Your task to perform on an android device: Search for the best coffee tables on Crate & Barrel Image 0: 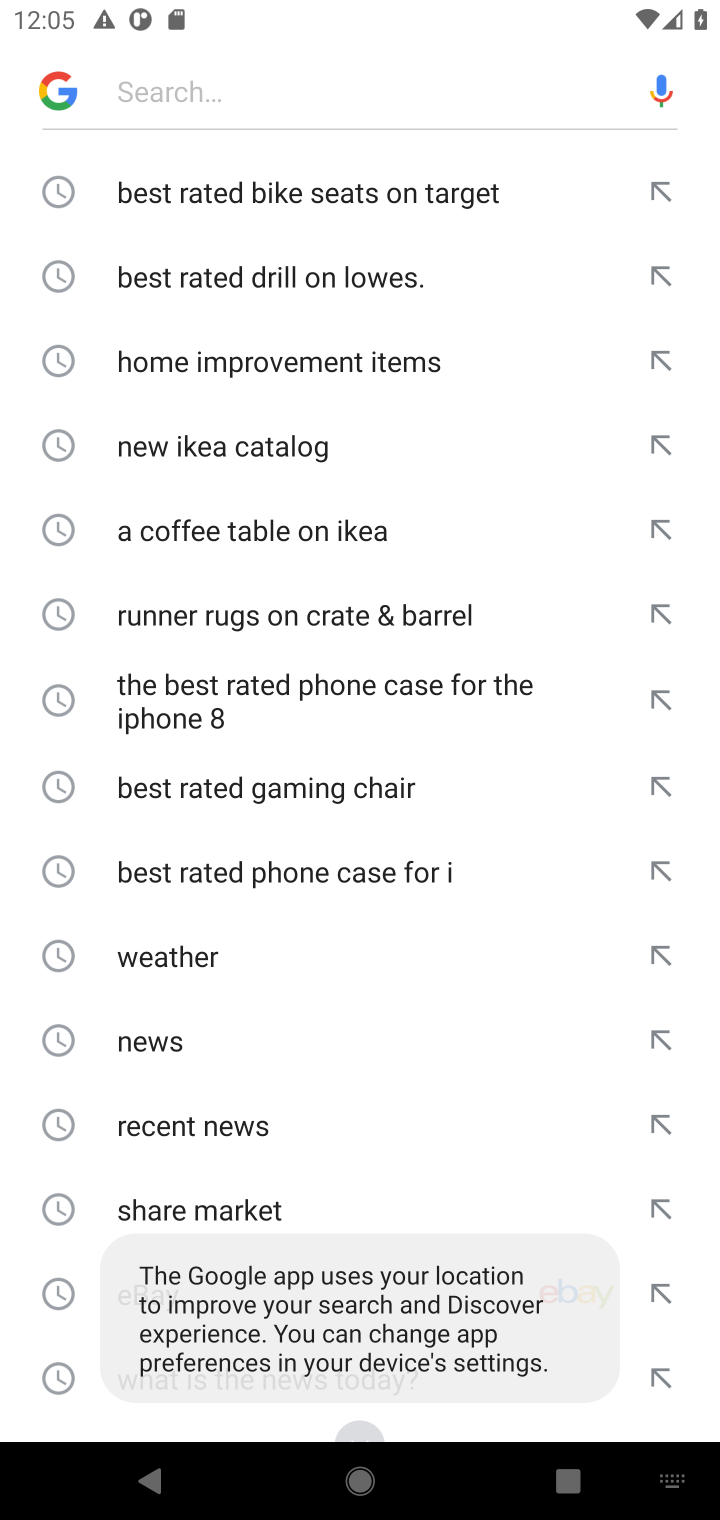
Step 0: press home button
Your task to perform on an android device: Search for the best coffee tables on Crate & Barrel Image 1: 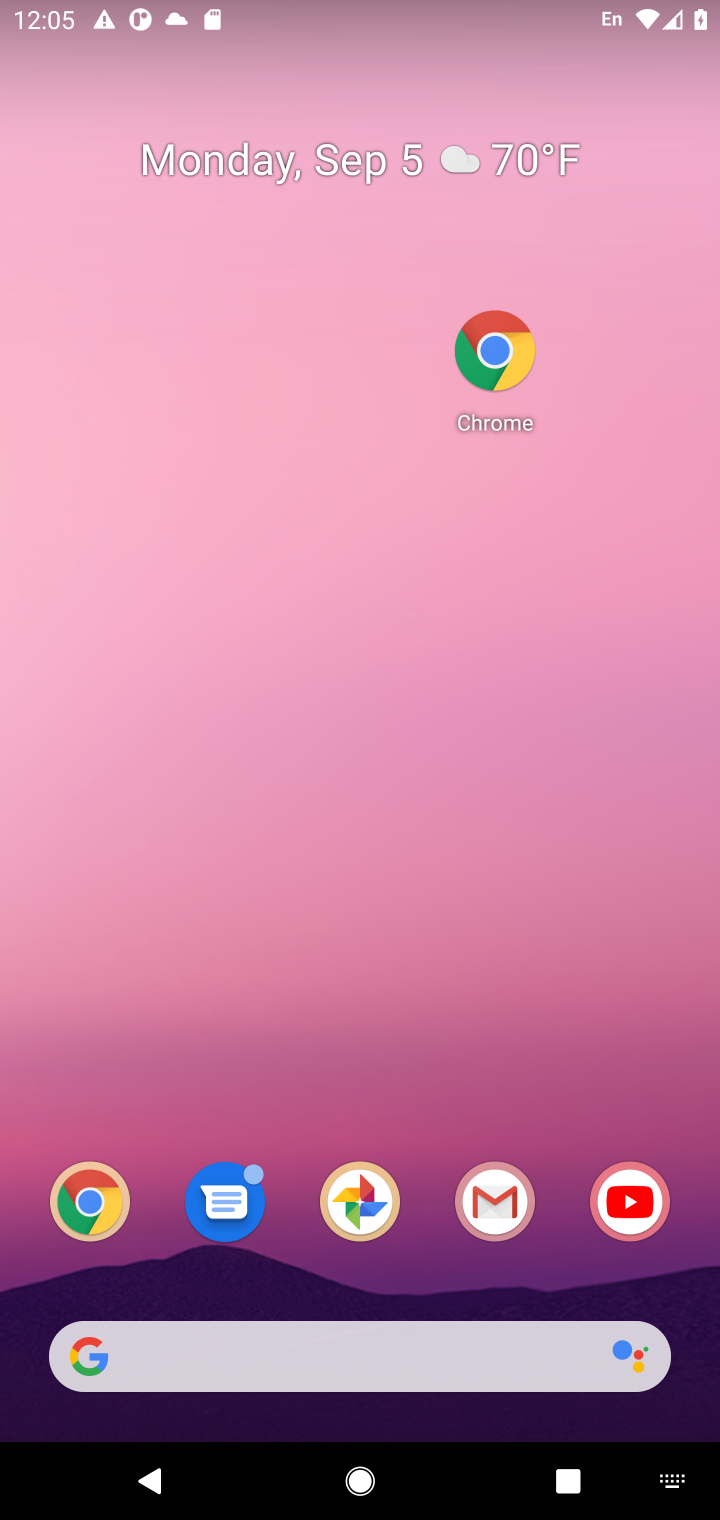
Step 1: drag from (495, 1107) to (711, 119)
Your task to perform on an android device: Search for the best coffee tables on Crate & Barrel Image 2: 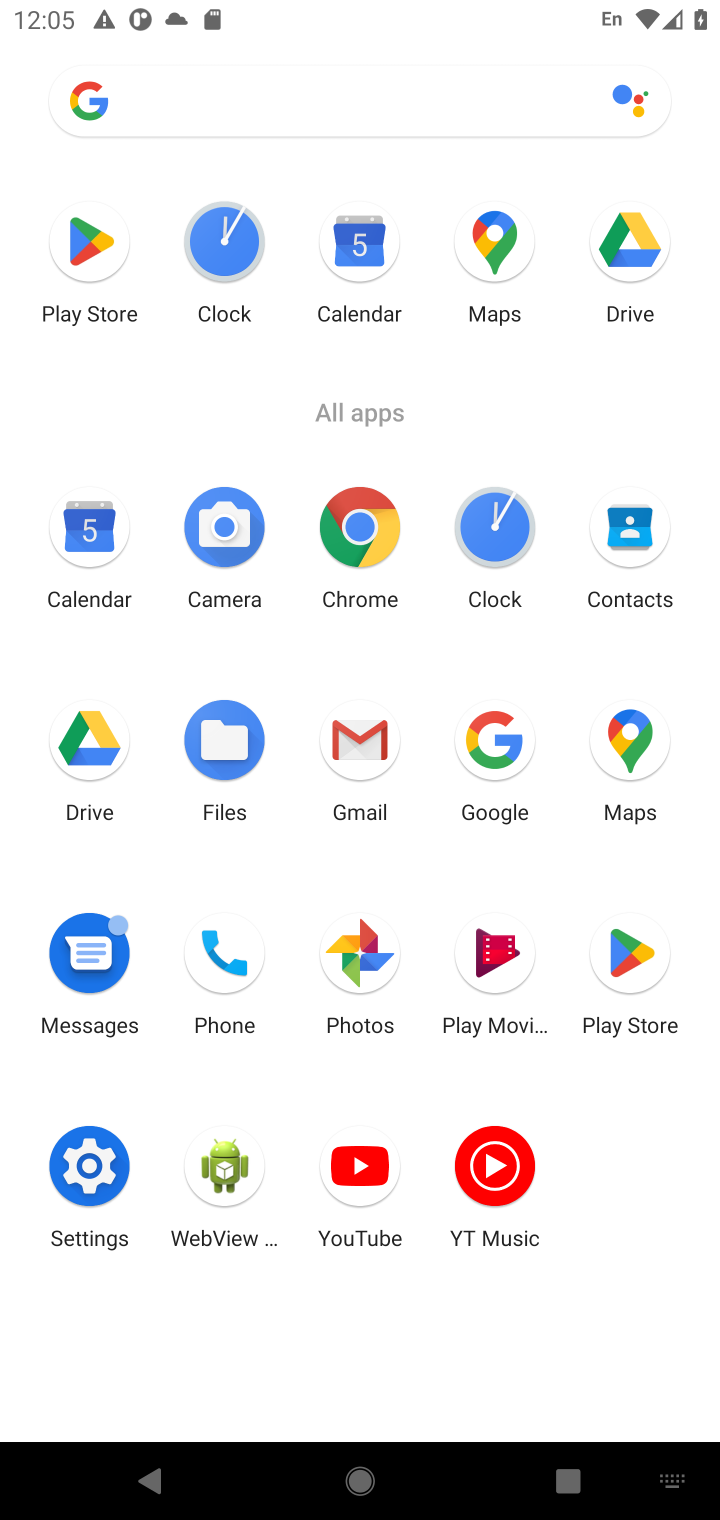
Step 2: click (364, 527)
Your task to perform on an android device: Search for the best coffee tables on Crate & Barrel Image 3: 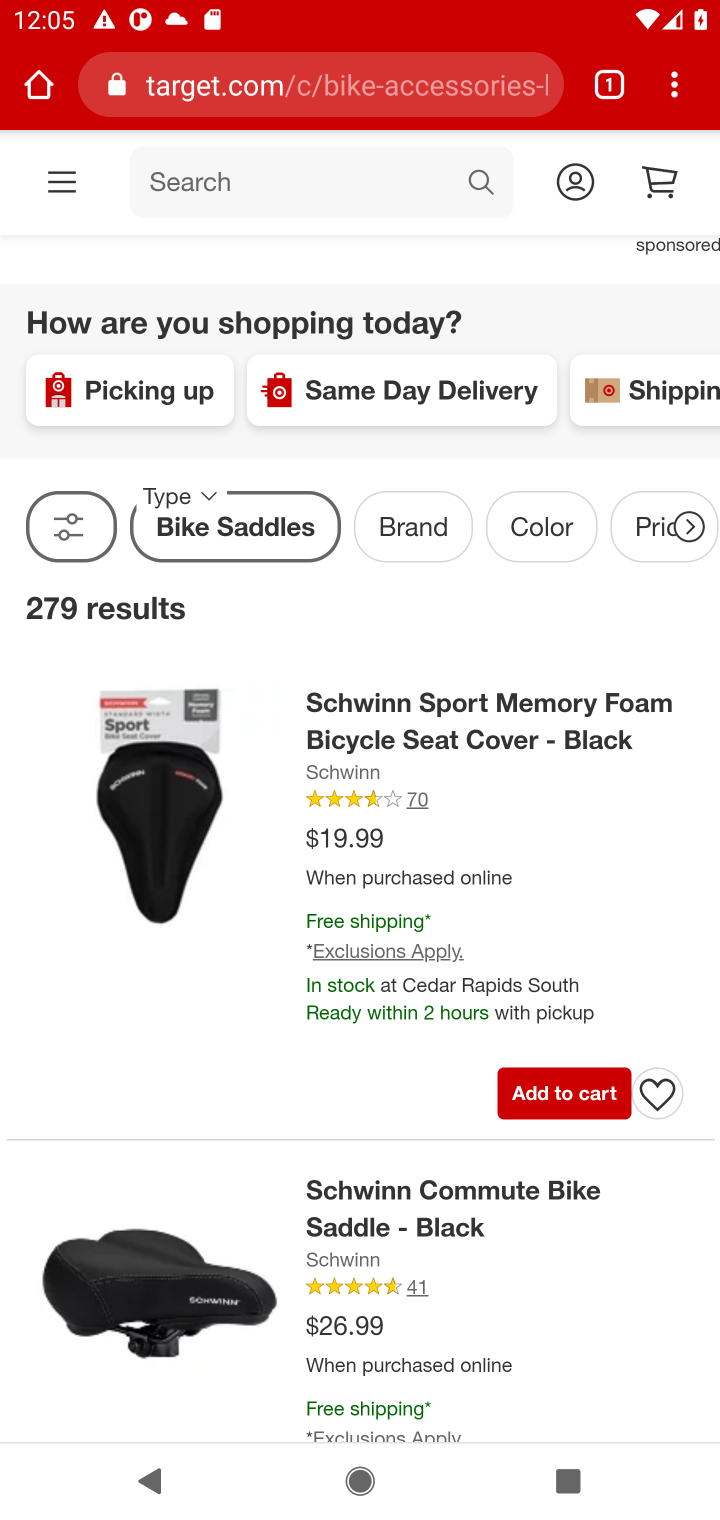
Step 3: click (393, 80)
Your task to perform on an android device: Search for the best coffee tables on Crate & Barrel Image 4: 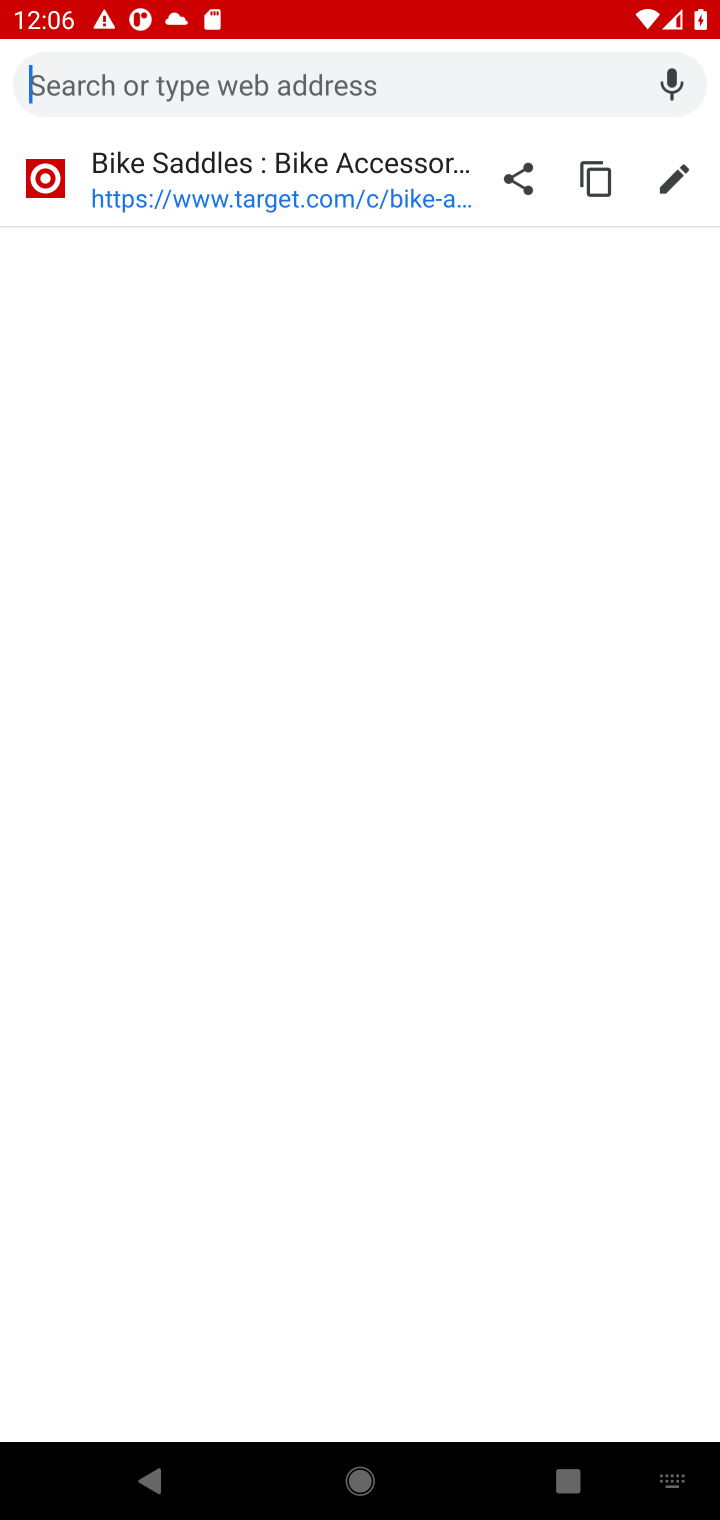
Step 4: type "best coffee tables on Crate & Barrel"
Your task to perform on an android device: Search for the best coffee tables on Crate & Barrel Image 5: 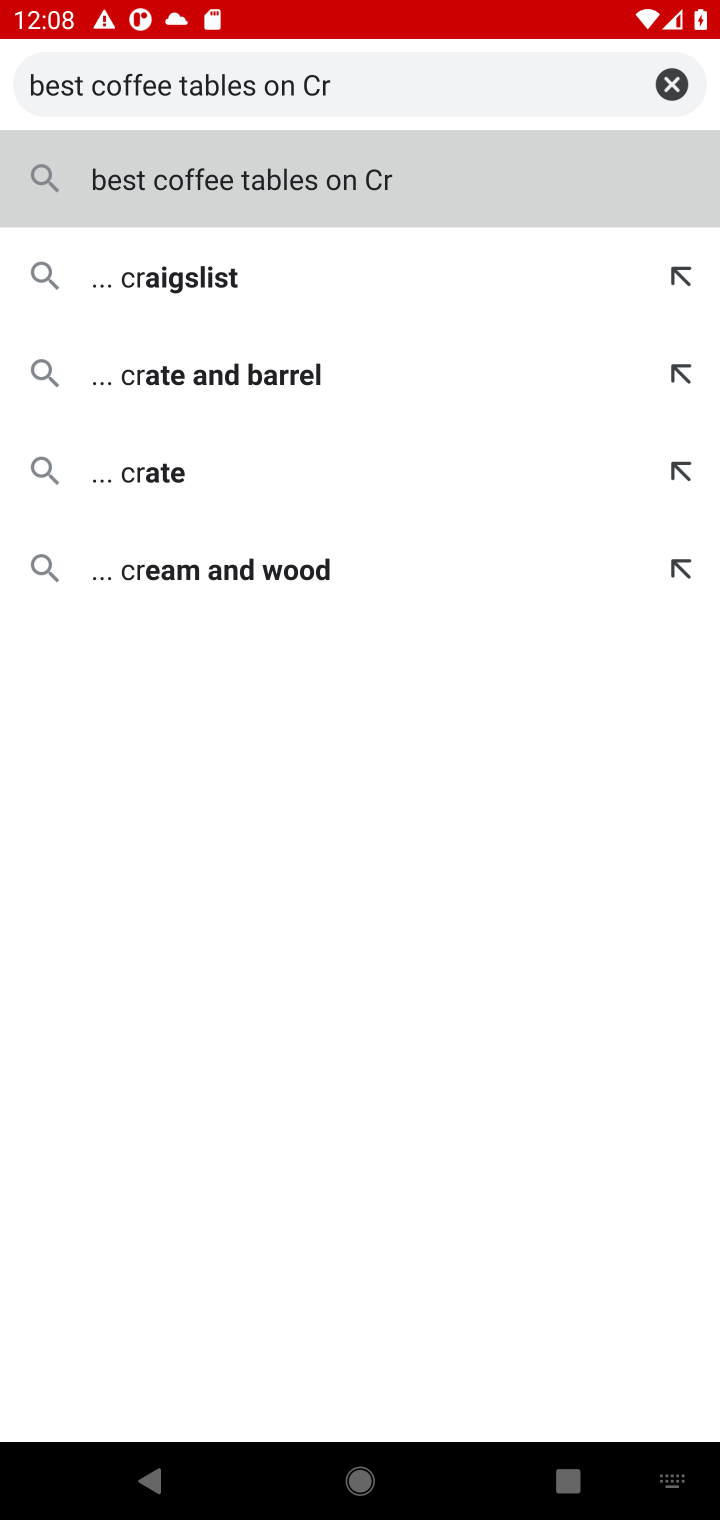
Step 5: type "ate & Barrel"
Your task to perform on an android device: Search for the best coffee tables on Crate & Barrel Image 6: 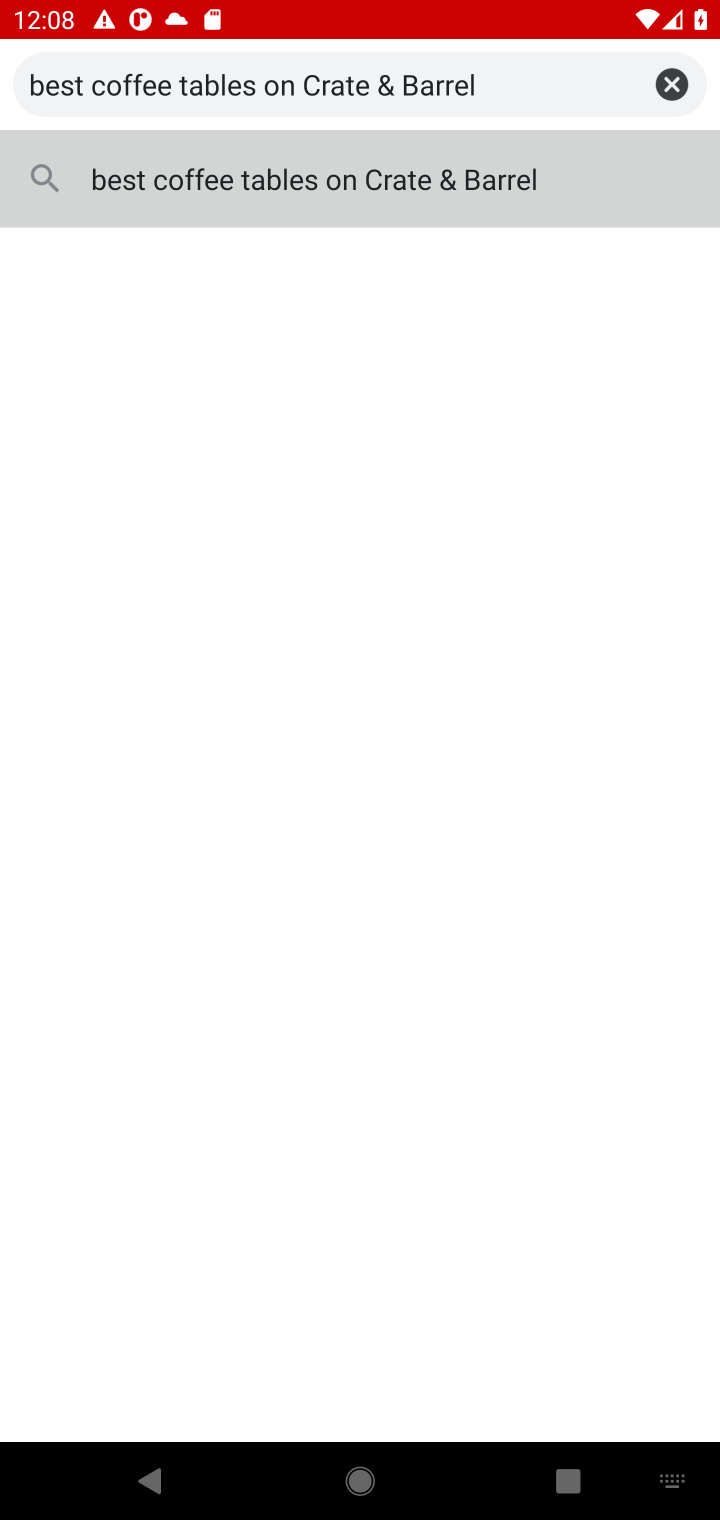
Step 6: press enter
Your task to perform on an android device: Search for the best coffee tables on Crate & Barrel Image 7: 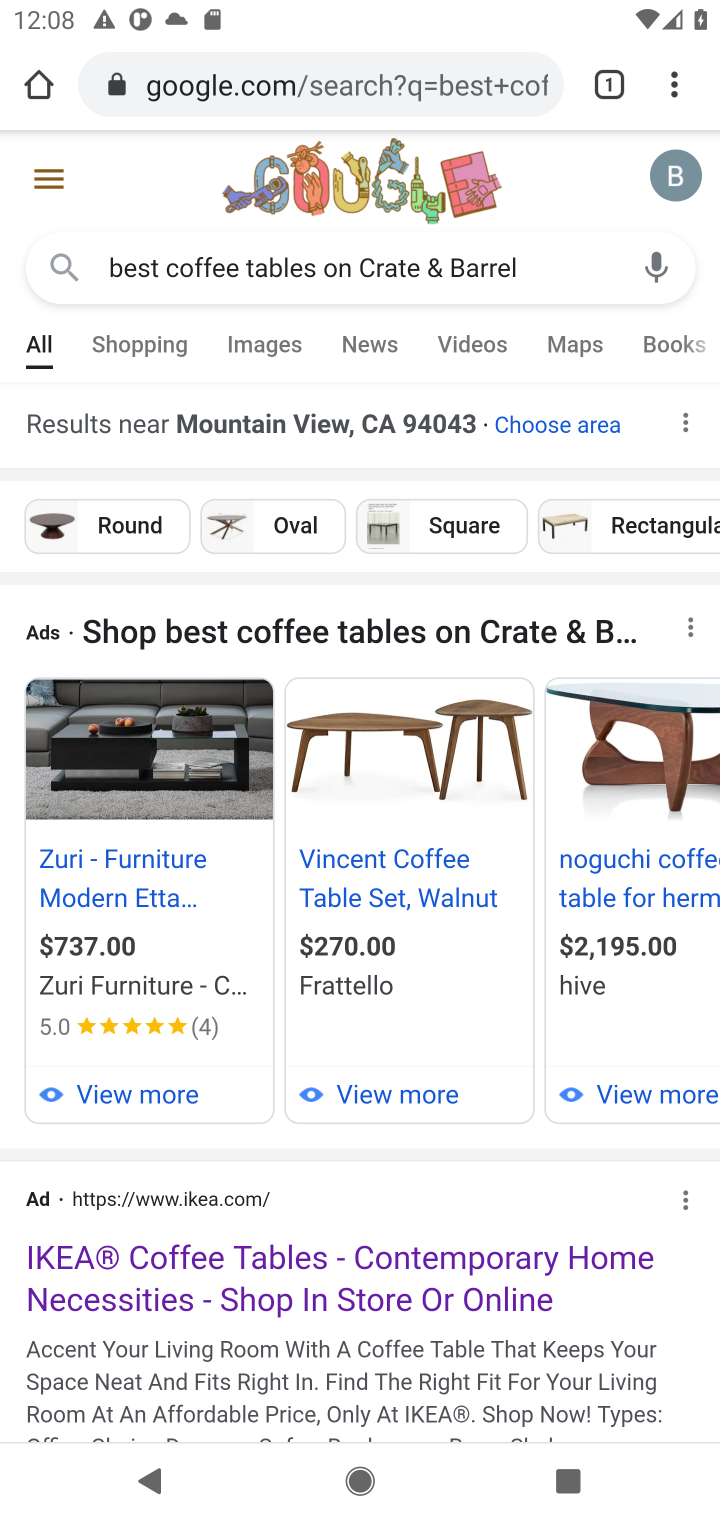
Step 7: drag from (388, 1200) to (711, 985)
Your task to perform on an android device: Search for the best coffee tables on Crate & Barrel Image 8: 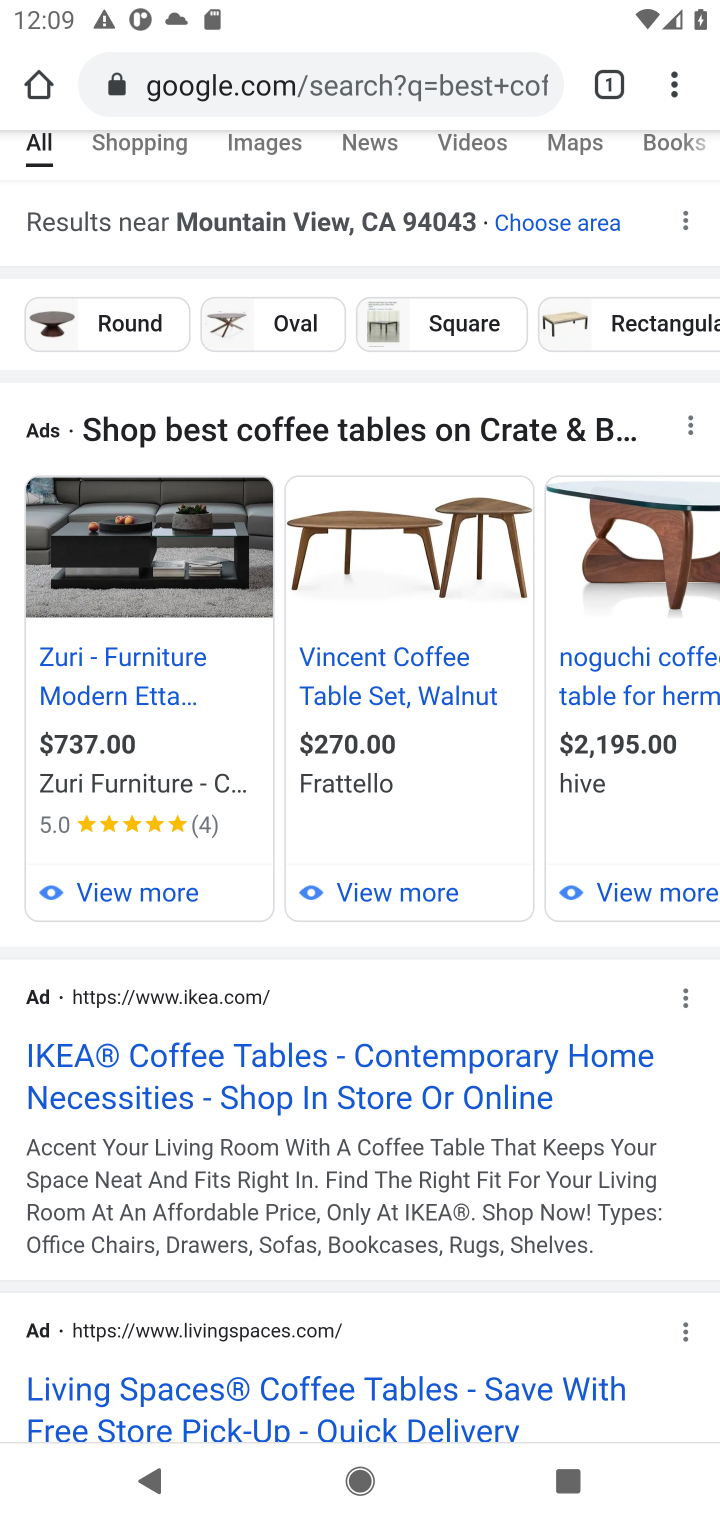
Step 8: drag from (195, 1192) to (363, 4)
Your task to perform on an android device: Search for the best coffee tables on Crate & Barrel Image 9: 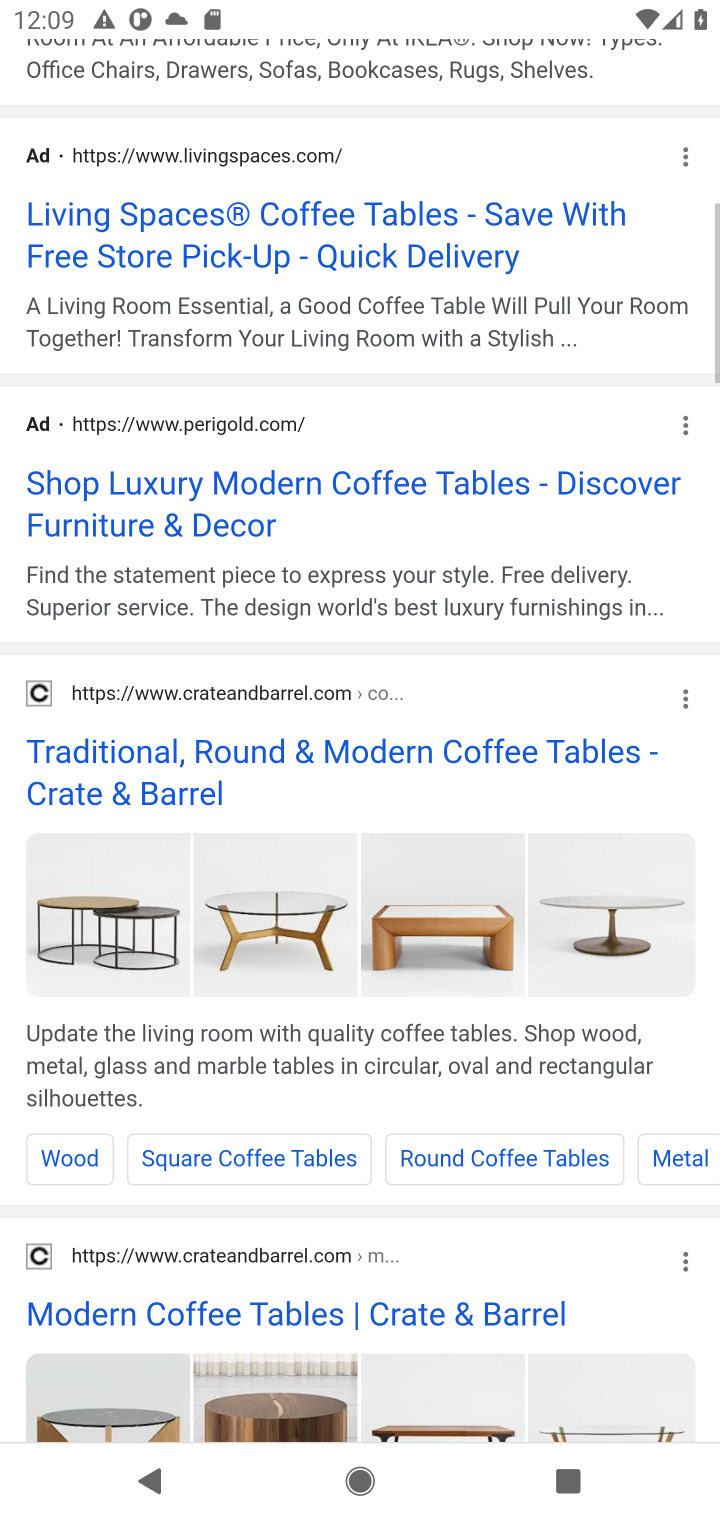
Step 9: drag from (425, 1014) to (442, 708)
Your task to perform on an android device: Search for the best coffee tables on Crate & Barrel Image 10: 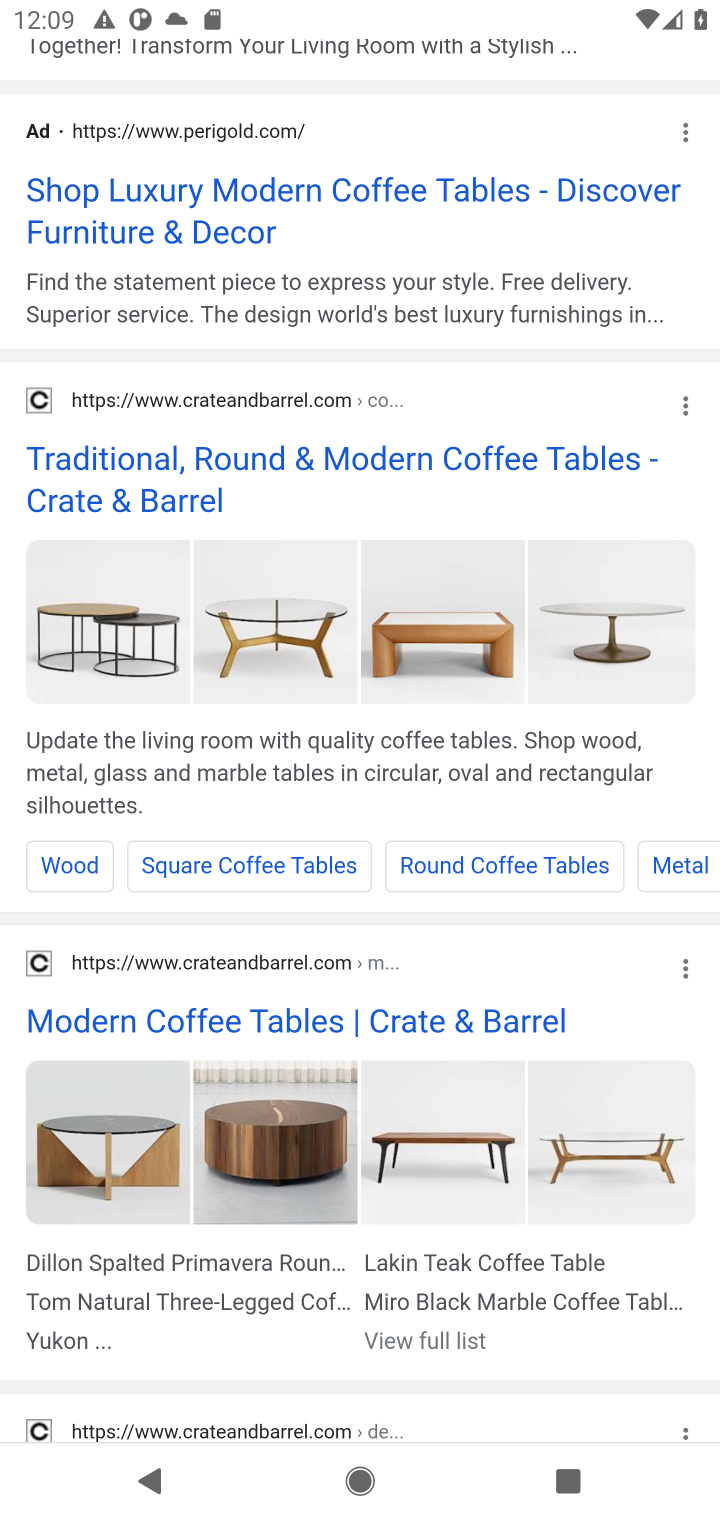
Step 10: click (364, 1016)
Your task to perform on an android device: Search for the best coffee tables on Crate & Barrel Image 11: 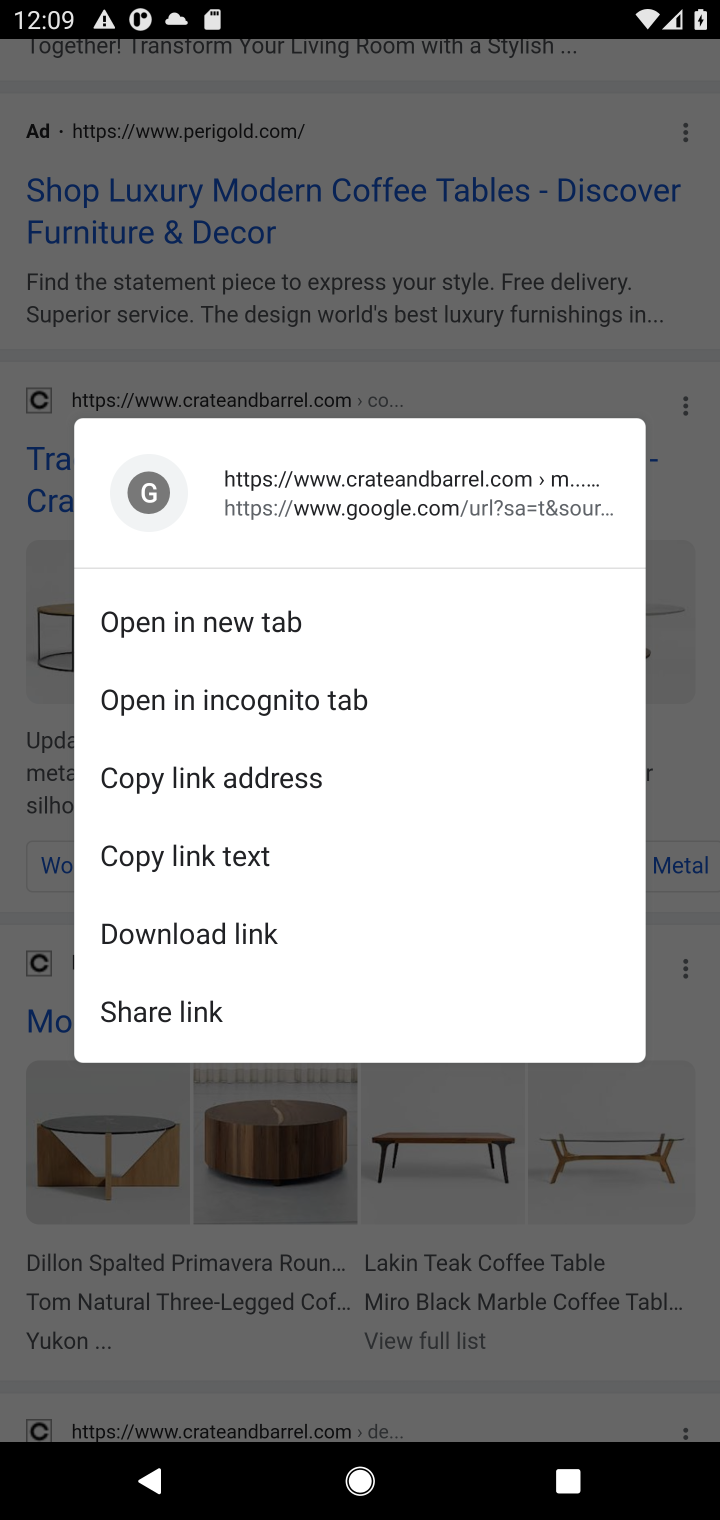
Step 11: click (371, 281)
Your task to perform on an android device: Search for the best coffee tables on Crate & Barrel Image 12: 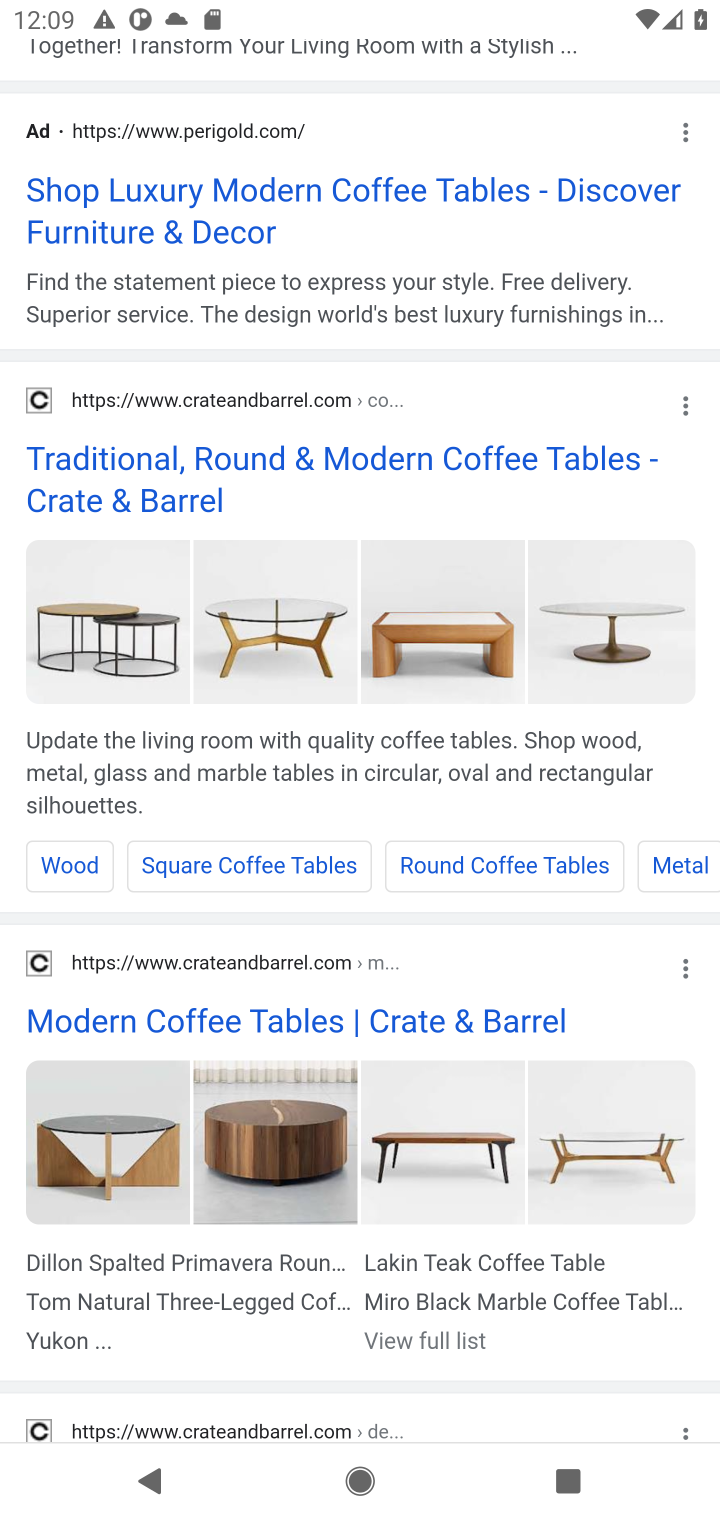
Step 12: click (337, 467)
Your task to perform on an android device: Search for the best coffee tables on Crate & Barrel Image 13: 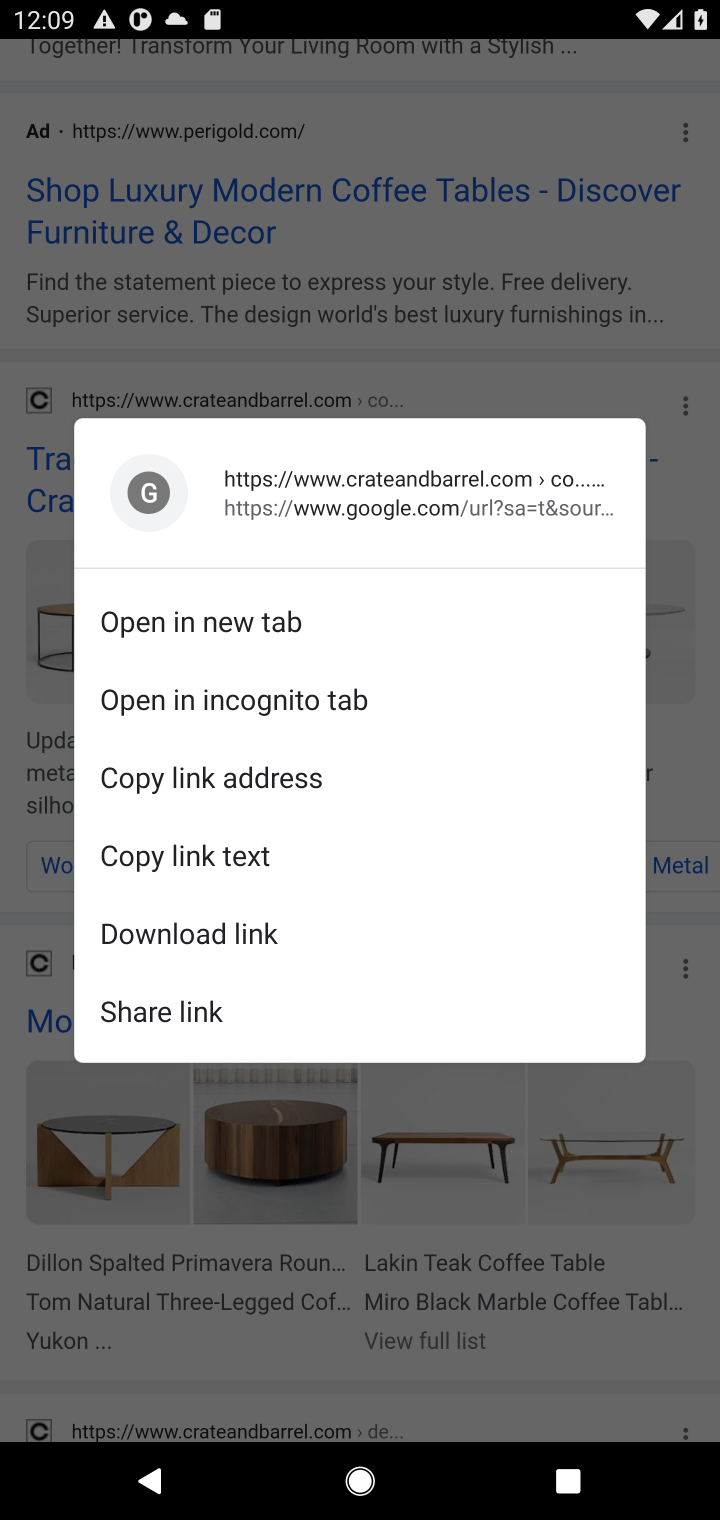
Step 13: click (385, 332)
Your task to perform on an android device: Search for the best coffee tables on Crate & Barrel Image 14: 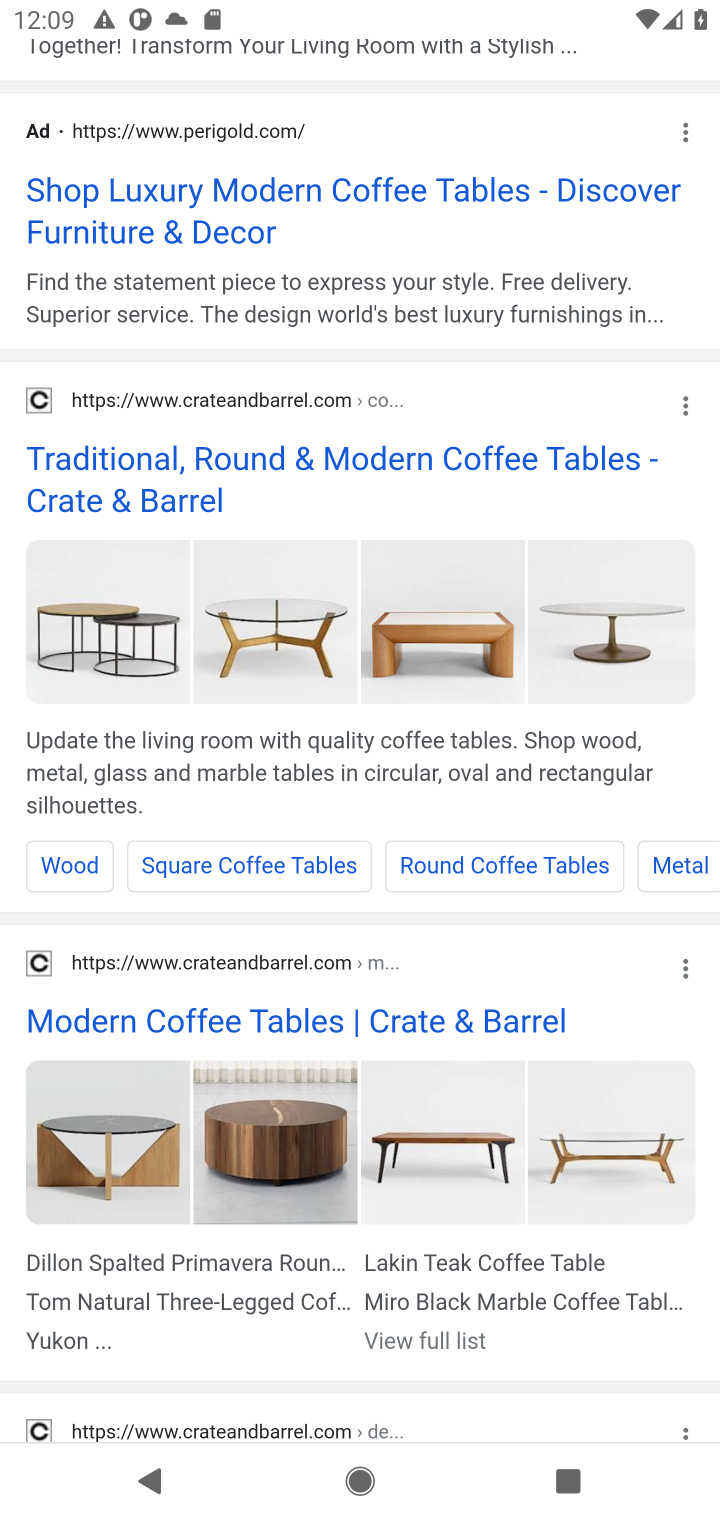
Step 14: click (240, 460)
Your task to perform on an android device: Search for the best coffee tables on Crate & Barrel Image 15: 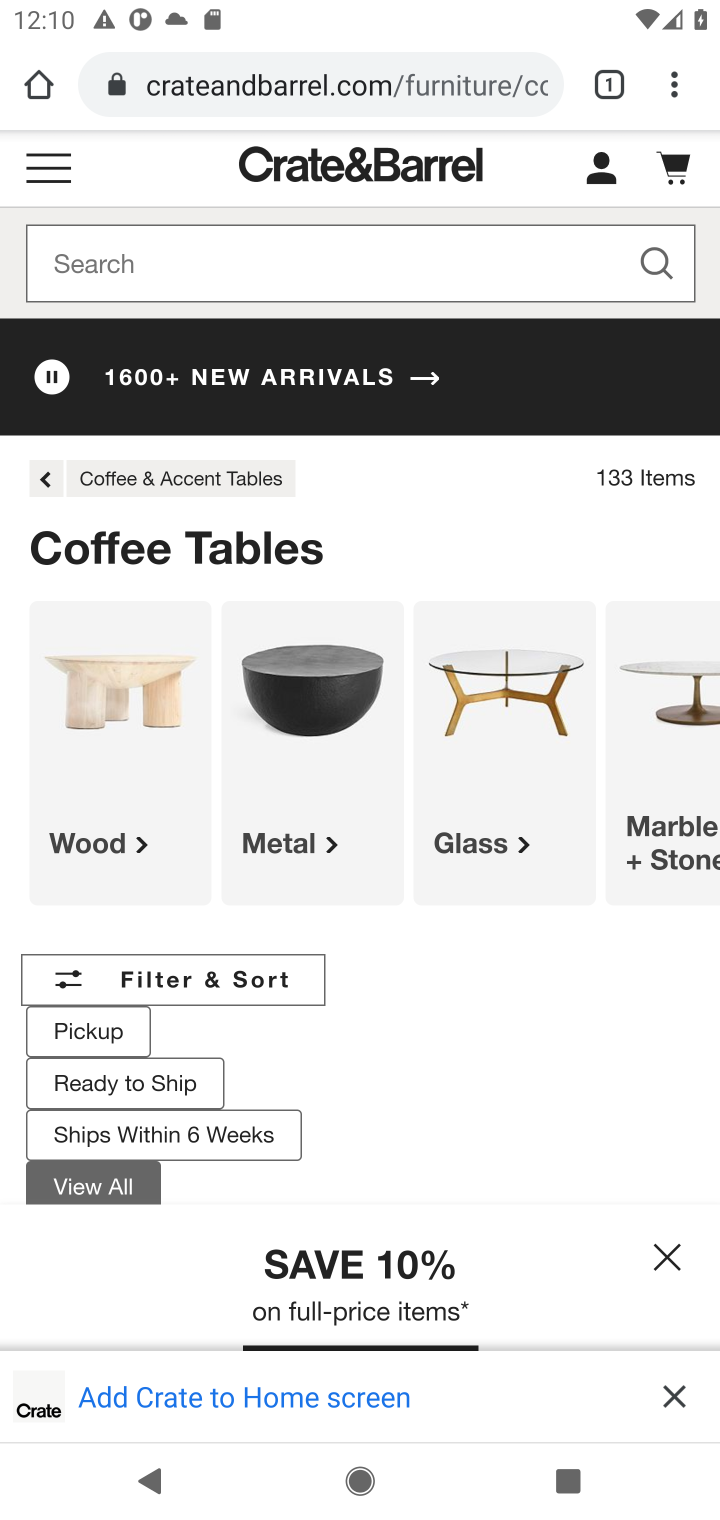
Step 15: click (533, 197)
Your task to perform on an android device: Search for the best coffee tables on Crate & Barrel Image 16: 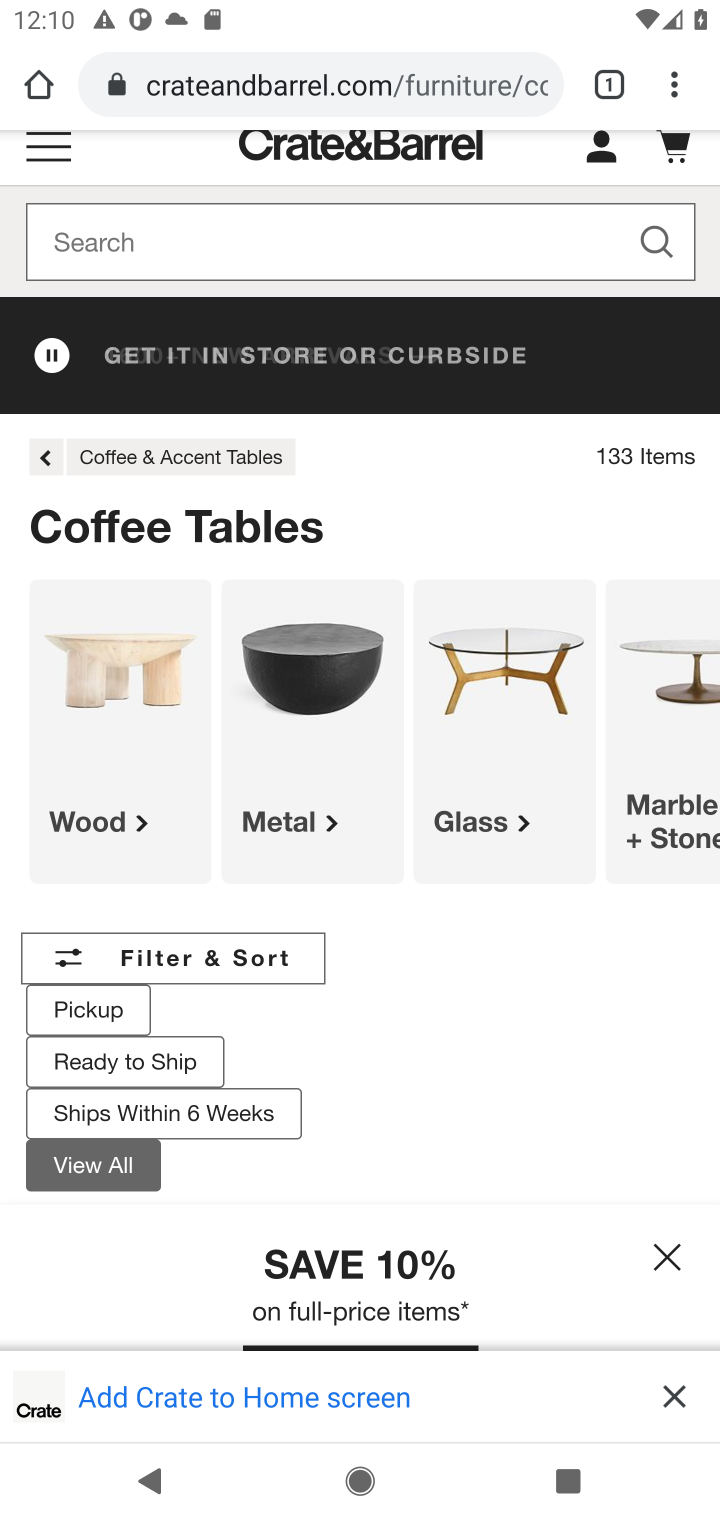
Step 16: task complete